Your task to perform on an android device: Open maps Image 0: 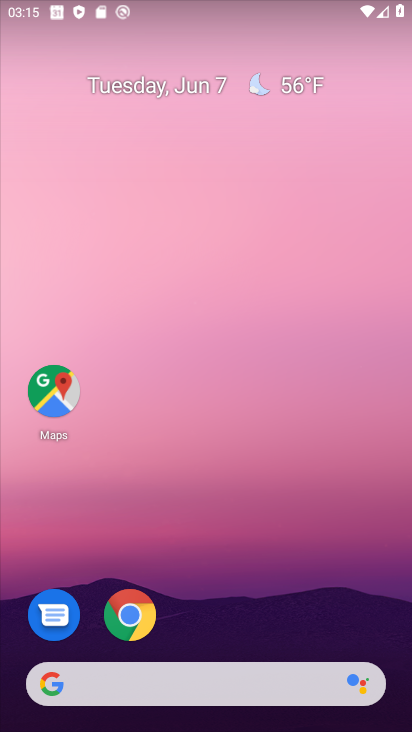
Step 0: click (46, 394)
Your task to perform on an android device: Open maps Image 1: 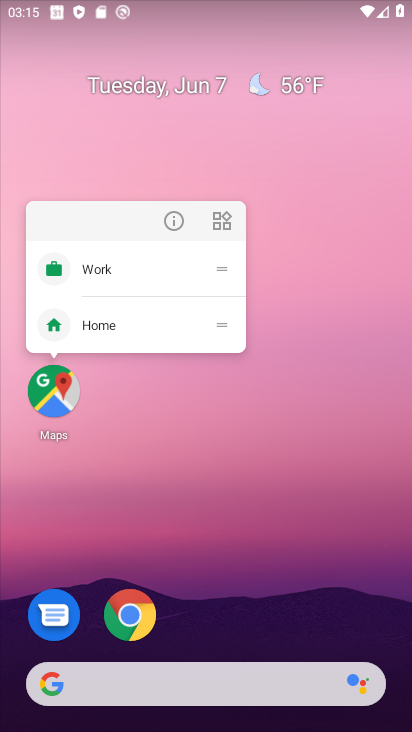
Step 1: click (52, 402)
Your task to perform on an android device: Open maps Image 2: 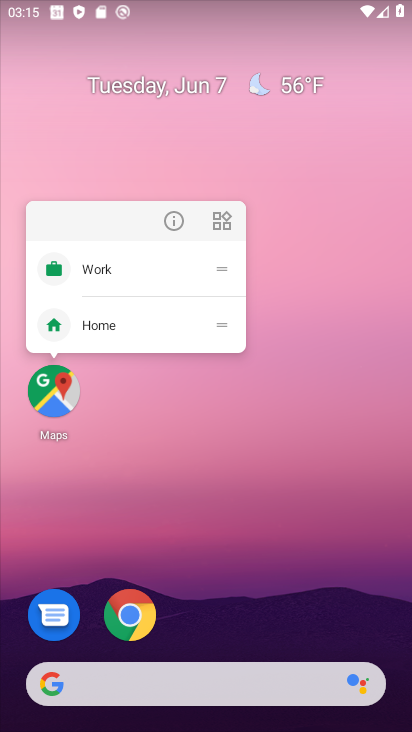
Step 2: click (59, 409)
Your task to perform on an android device: Open maps Image 3: 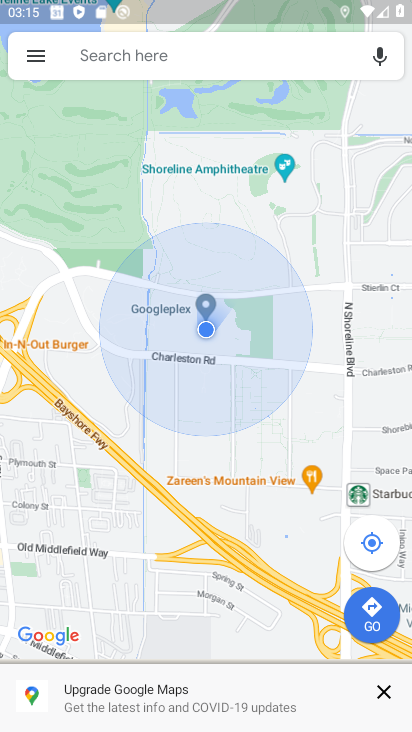
Step 3: task complete